Your task to perform on an android device: What's the weather today? Image 0: 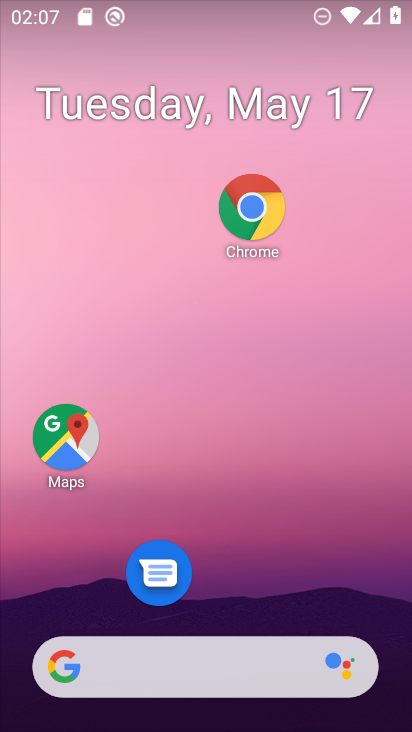
Step 0: drag from (269, 599) to (216, 56)
Your task to perform on an android device: What's the weather today? Image 1: 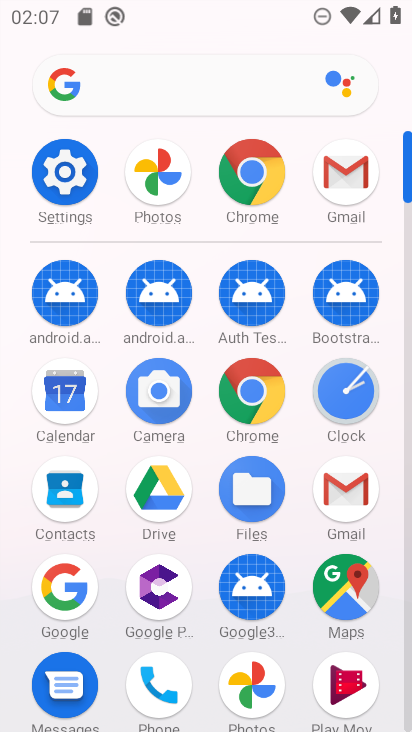
Step 1: drag from (39, 437) to (411, 426)
Your task to perform on an android device: What's the weather today? Image 2: 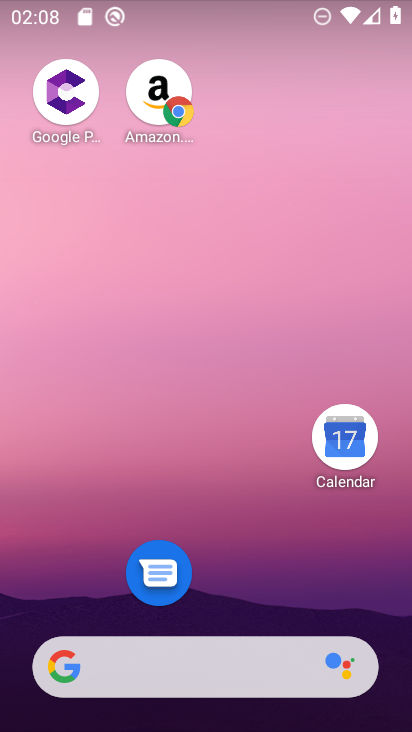
Step 2: click (268, 506)
Your task to perform on an android device: What's the weather today? Image 3: 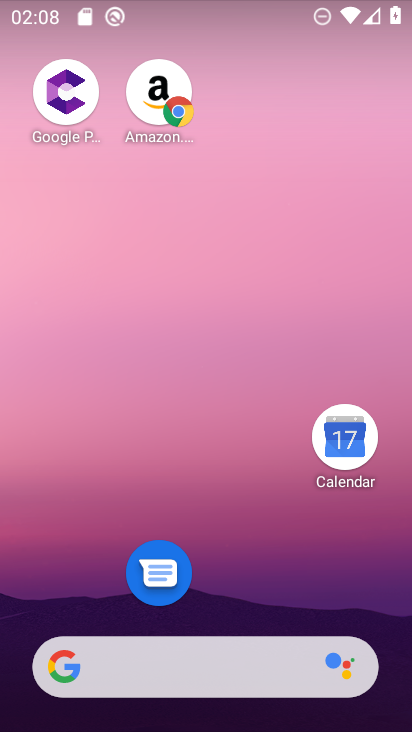
Step 3: drag from (12, 394) to (388, 392)
Your task to perform on an android device: What's the weather today? Image 4: 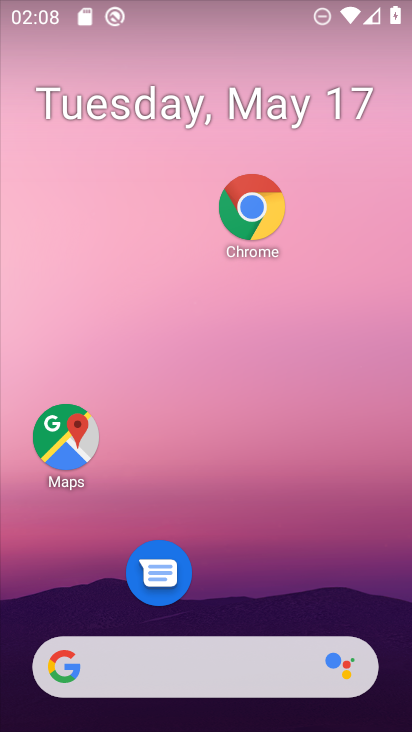
Step 4: click (215, 513)
Your task to perform on an android device: What's the weather today? Image 5: 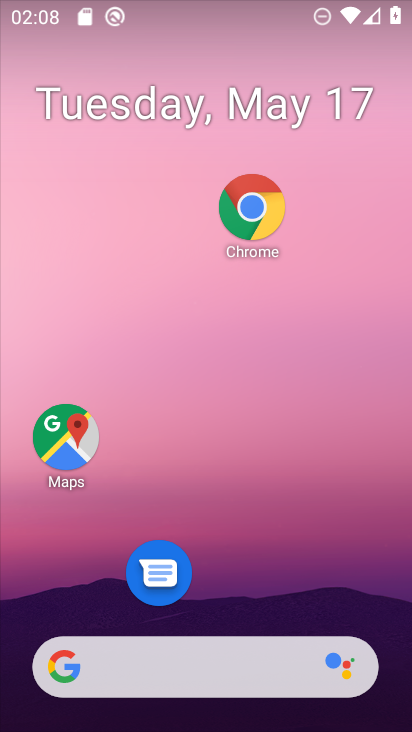
Step 5: drag from (15, 347) to (381, 314)
Your task to perform on an android device: What's the weather today? Image 6: 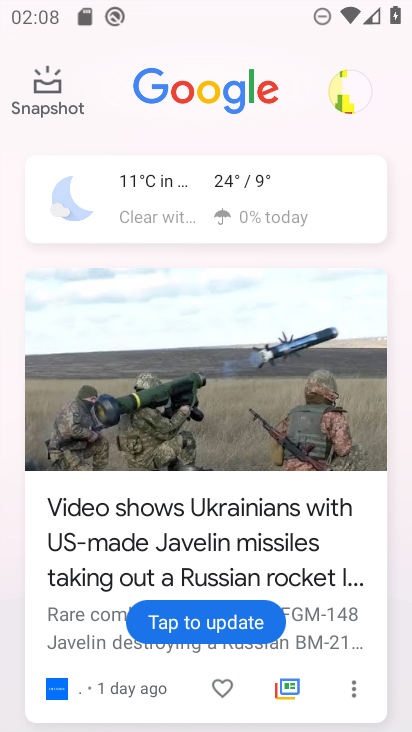
Step 6: click (151, 197)
Your task to perform on an android device: What's the weather today? Image 7: 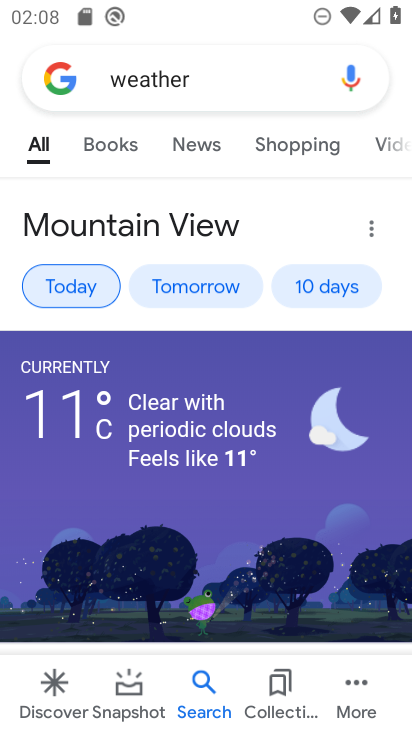
Step 7: task complete